Your task to perform on an android device: Turn off the flashlight Image 0: 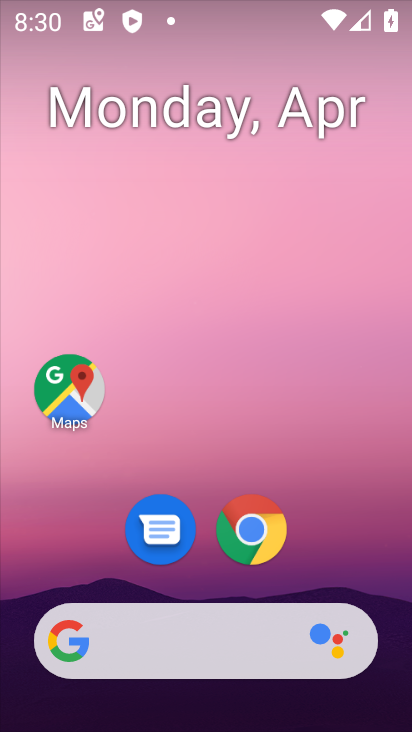
Step 0: click (327, 149)
Your task to perform on an android device: Turn off the flashlight Image 1: 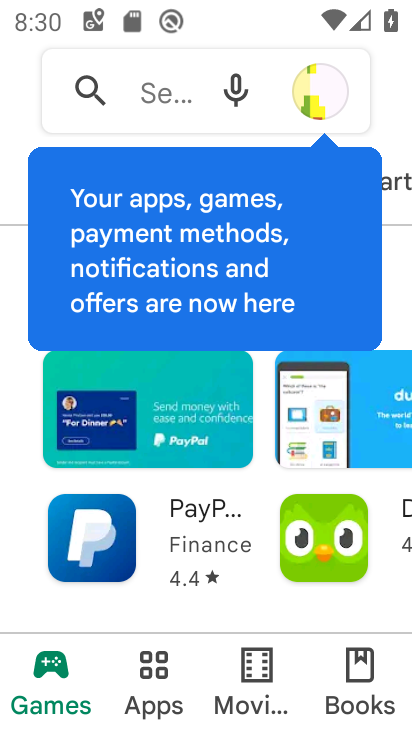
Step 1: press home button
Your task to perform on an android device: Turn off the flashlight Image 2: 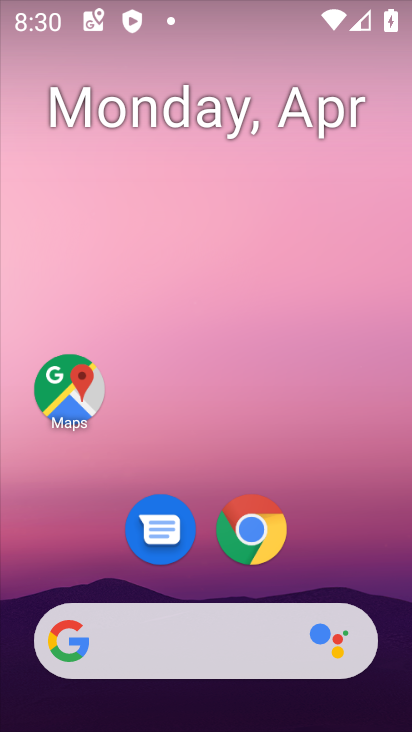
Step 2: drag from (363, 344) to (363, 83)
Your task to perform on an android device: Turn off the flashlight Image 3: 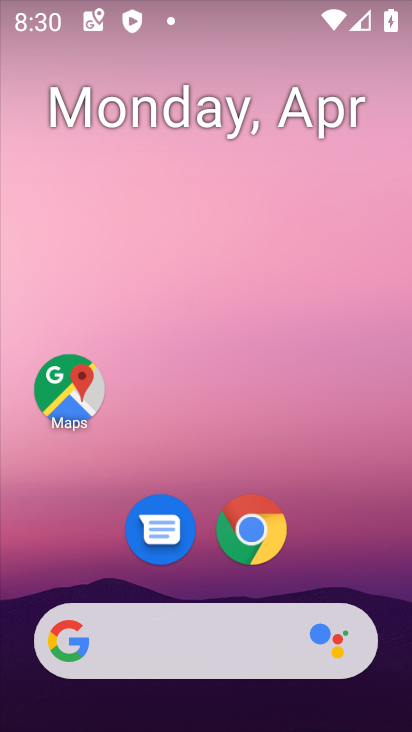
Step 3: drag from (363, 521) to (342, 137)
Your task to perform on an android device: Turn off the flashlight Image 4: 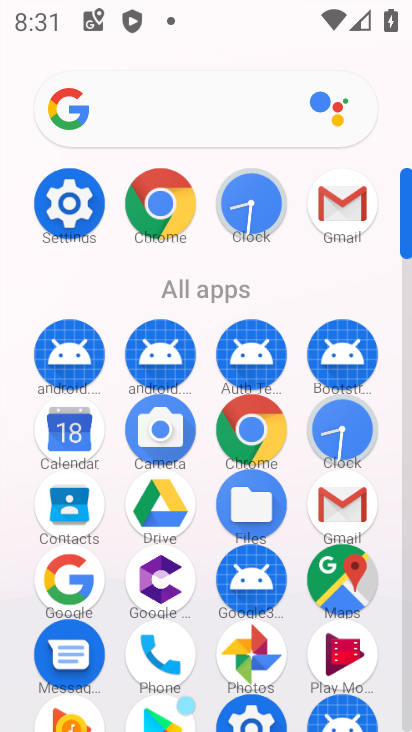
Step 4: click (73, 210)
Your task to perform on an android device: Turn off the flashlight Image 5: 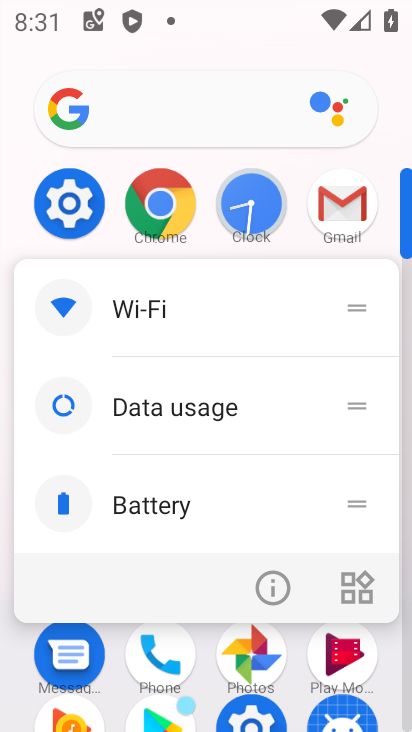
Step 5: click (67, 207)
Your task to perform on an android device: Turn off the flashlight Image 6: 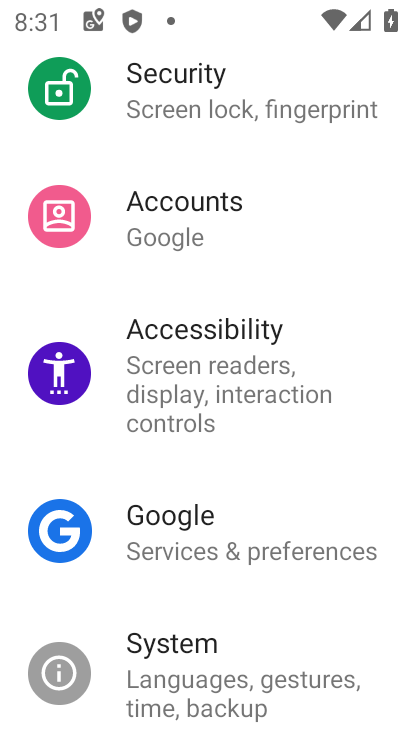
Step 6: drag from (349, 163) to (283, 607)
Your task to perform on an android device: Turn off the flashlight Image 7: 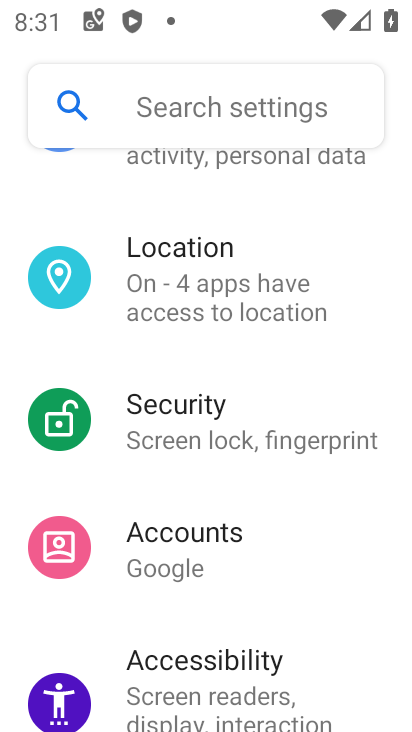
Step 7: click (248, 123)
Your task to perform on an android device: Turn off the flashlight Image 8: 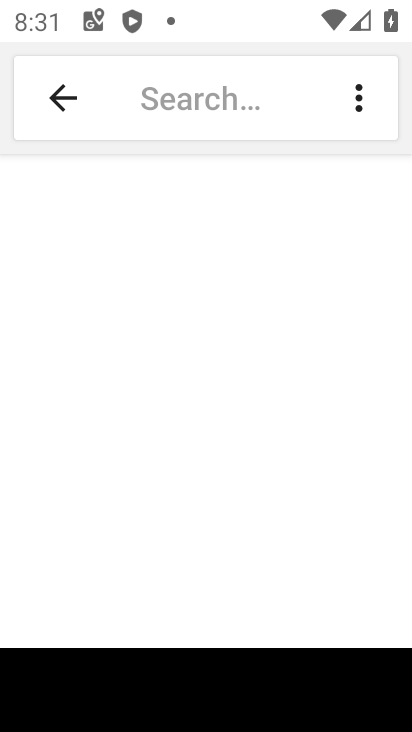
Step 8: type "flashlight"
Your task to perform on an android device: Turn off the flashlight Image 9: 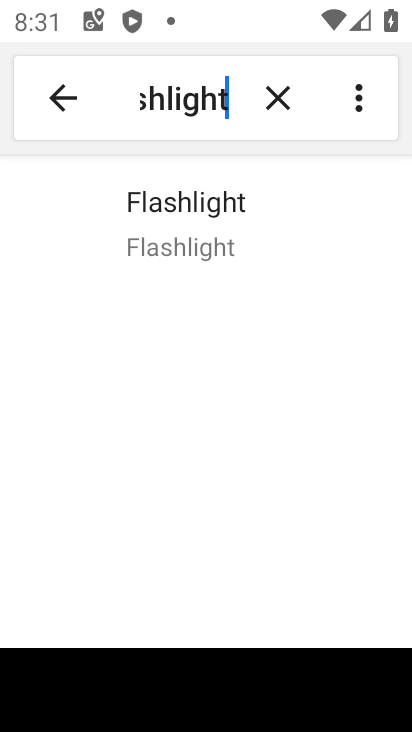
Step 9: click (224, 222)
Your task to perform on an android device: Turn off the flashlight Image 10: 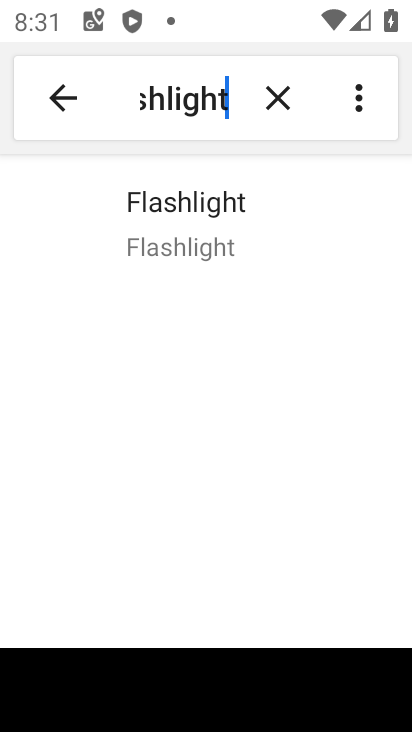
Step 10: task complete